Your task to perform on an android device: turn on airplane mode Image 0: 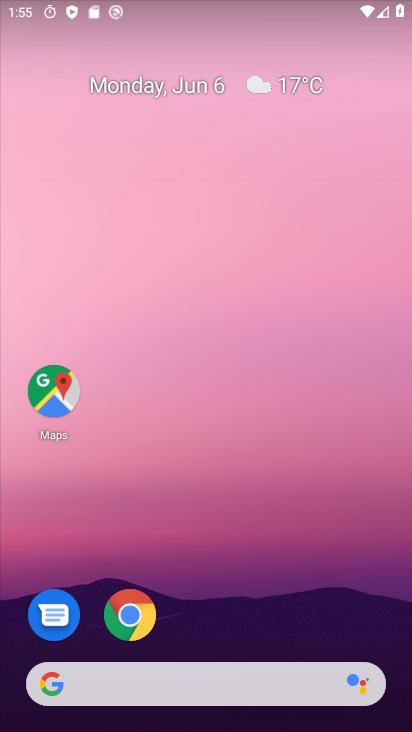
Step 0: drag from (203, 598) to (225, 217)
Your task to perform on an android device: turn on airplane mode Image 1: 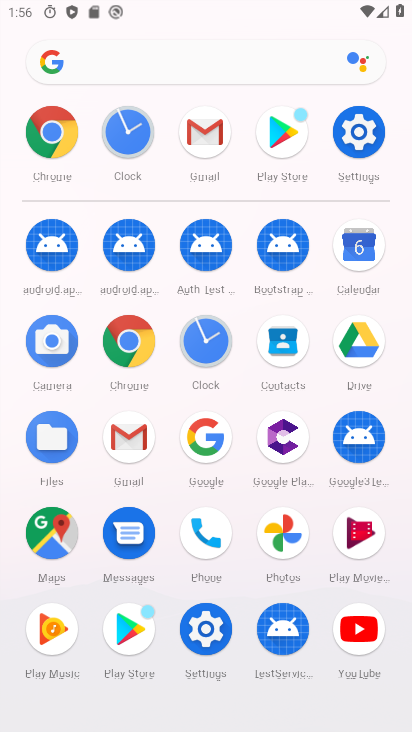
Step 1: click (358, 123)
Your task to perform on an android device: turn on airplane mode Image 2: 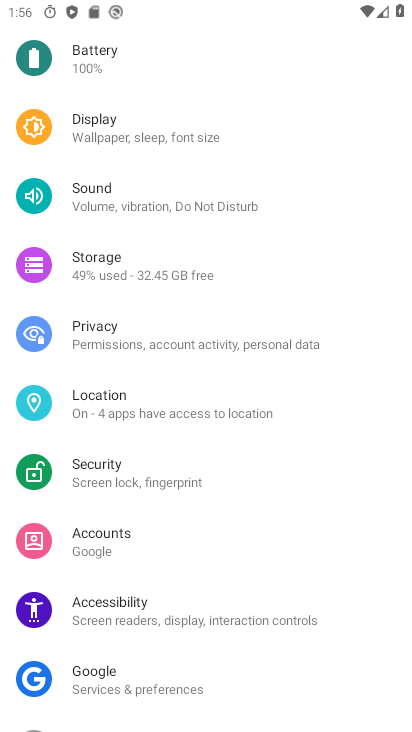
Step 2: drag from (132, 106) to (261, 664)
Your task to perform on an android device: turn on airplane mode Image 3: 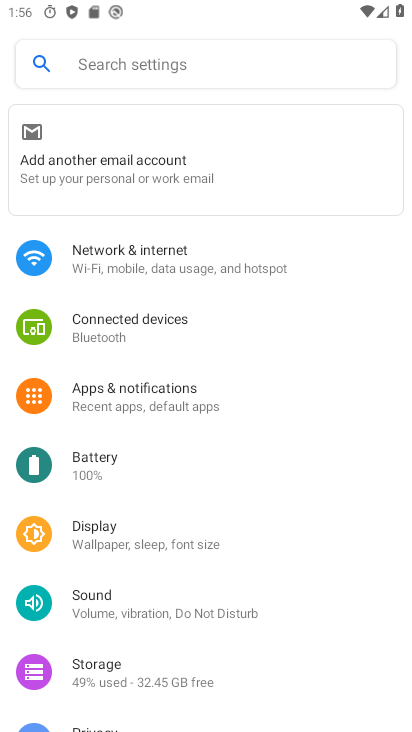
Step 3: click (111, 271)
Your task to perform on an android device: turn on airplane mode Image 4: 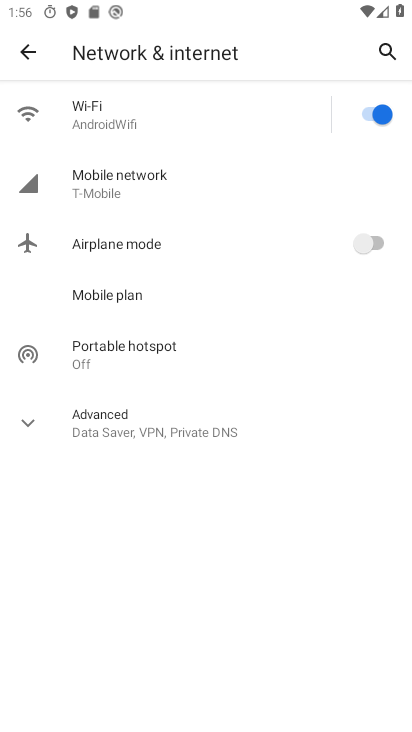
Step 4: click (200, 239)
Your task to perform on an android device: turn on airplane mode Image 5: 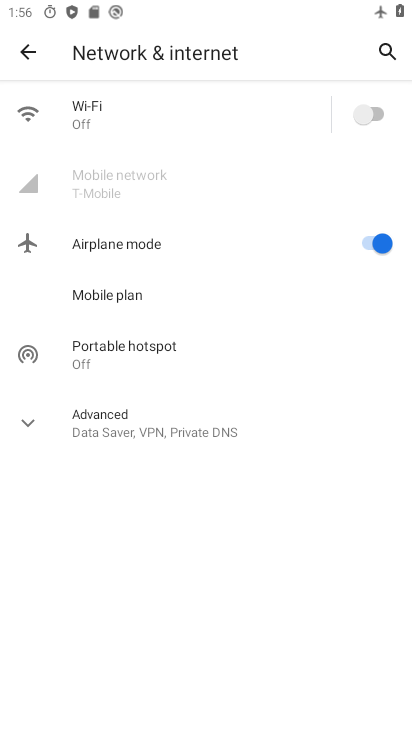
Step 5: task complete